Your task to perform on an android device: stop showing notifications on the lock screen Image 0: 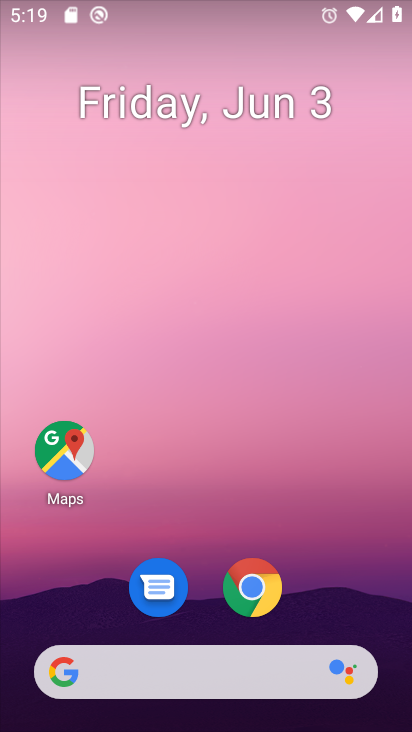
Step 0: drag from (172, 727) to (234, 134)
Your task to perform on an android device: stop showing notifications on the lock screen Image 1: 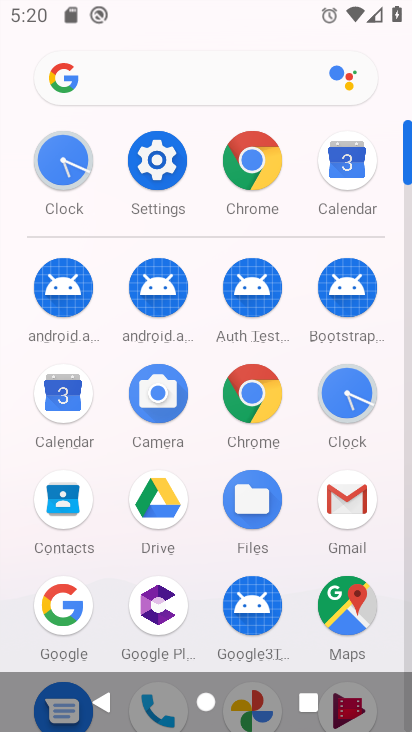
Step 1: click (148, 180)
Your task to perform on an android device: stop showing notifications on the lock screen Image 2: 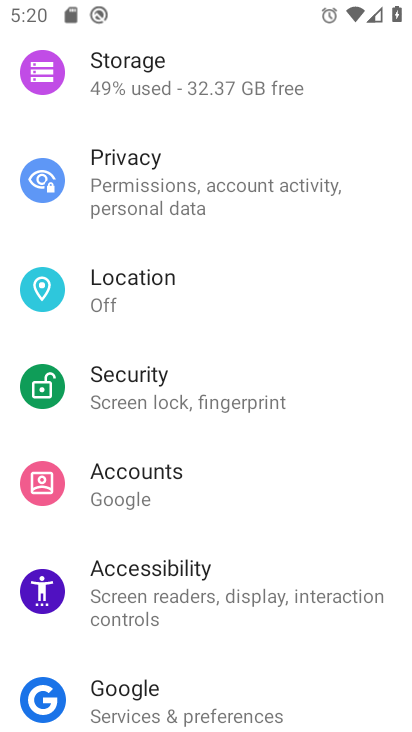
Step 2: drag from (246, 147) to (239, 627)
Your task to perform on an android device: stop showing notifications on the lock screen Image 3: 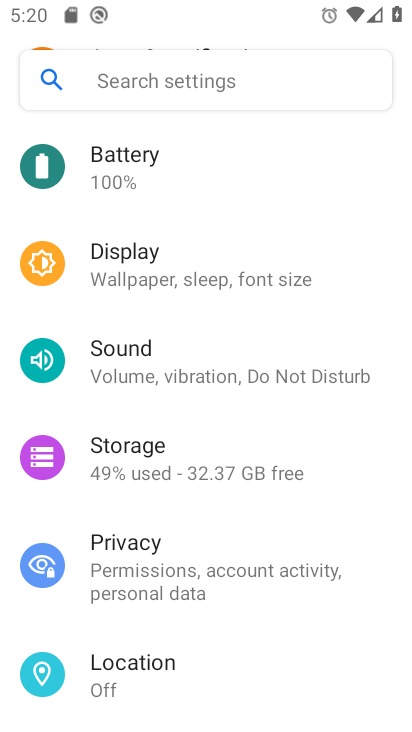
Step 3: drag from (299, 174) to (286, 694)
Your task to perform on an android device: stop showing notifications on the lock screen Image 4: 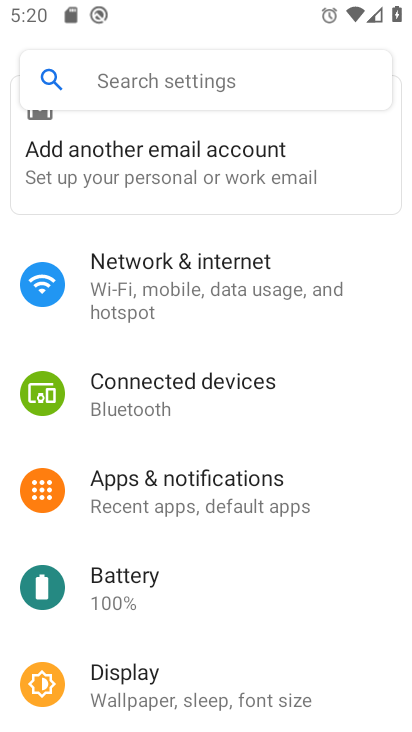
Step 4: click (189, 492)
Your task to perform on an android device: stop showing notifications on the lock screen Image 5: 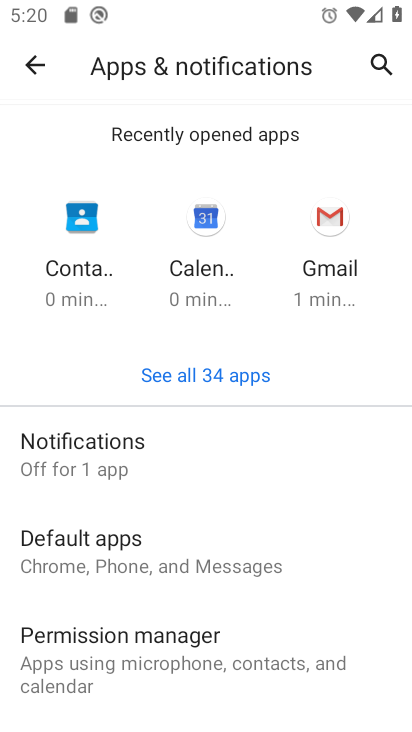
Step 5: click (125, 459)
Your task to perform on an android device: stop showing notifications on the lock screen Image 6: 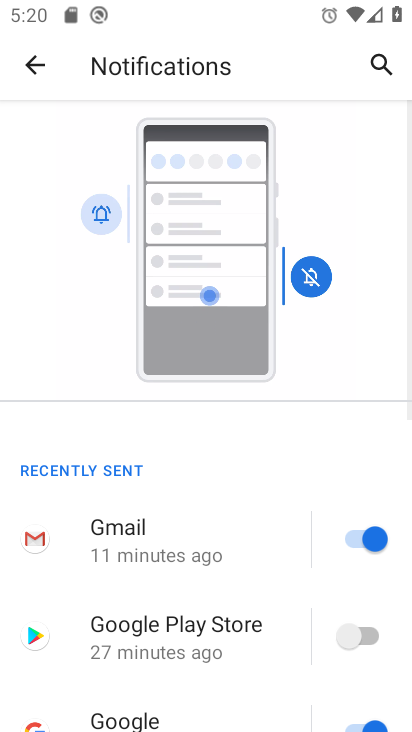
Step 6: drag from (232, 685) to (244, 153)
Your task to perform on an android device: stop showing notifications on the lock screen Image 7: 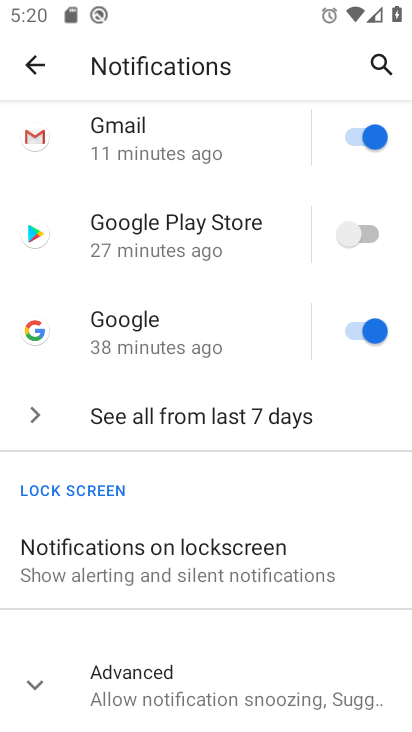
Step 7: click (177, 559)
Your task to perform on an android device: stop showing notifications on the lock screen Image 8: 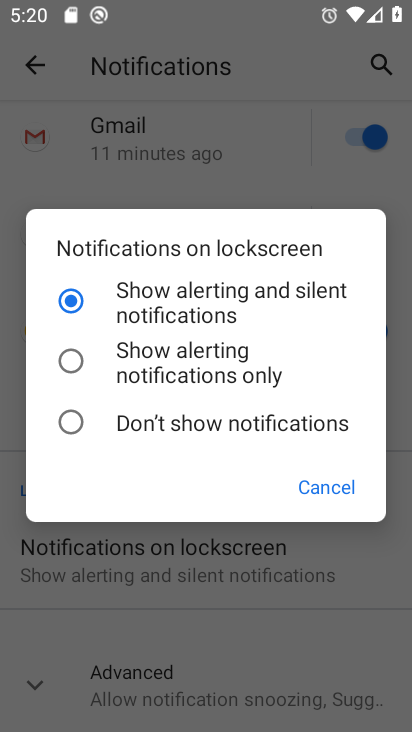
Step 8: task complete